Your task to perform on an android device: delete browsing data in the chrome app Image 0: 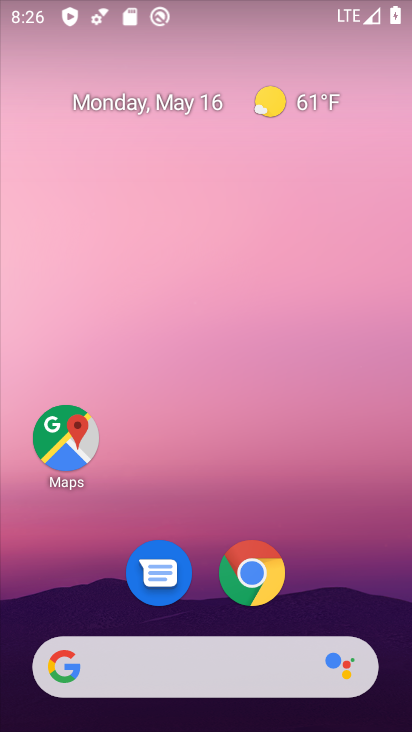
Step 0: click (247, 573)
Your task to perform on an android device: delete browsing data in the chrome app Image 1: 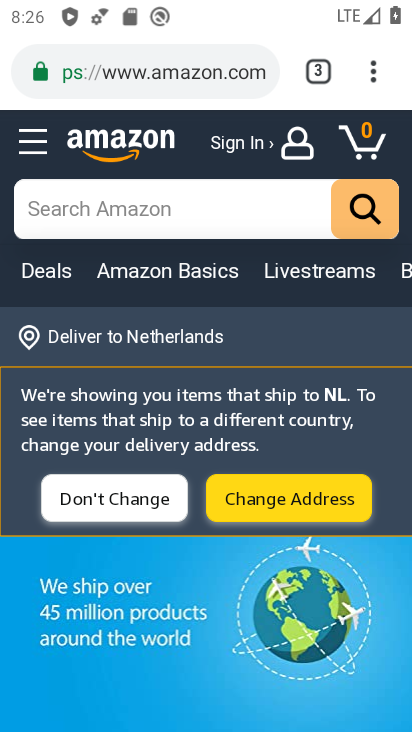
Step 1: click (375, 79)
Your task to perform on an android device: delete browsing data in the chrome app Image 2: 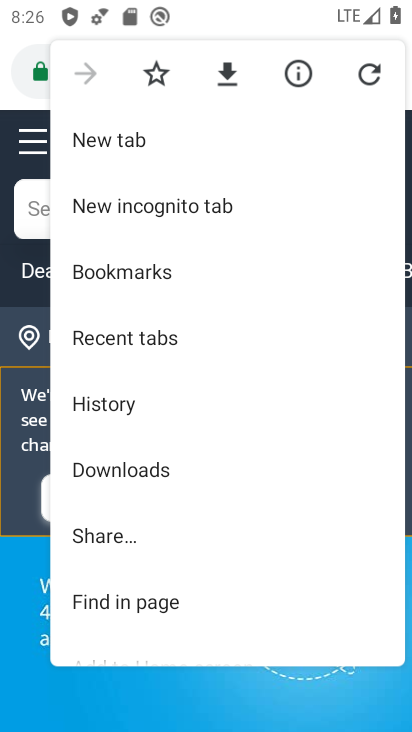
Step 2: click (119, 406)
Your task to perform on an android device: delete browsing data in the chrome app Image 3: 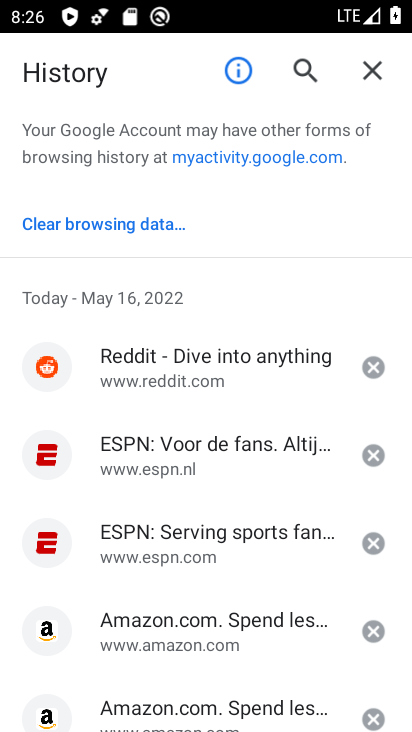
Step 3: click (108, 225)
Your task to perform on an android device: delete browsing data in the chrome app Image 4: 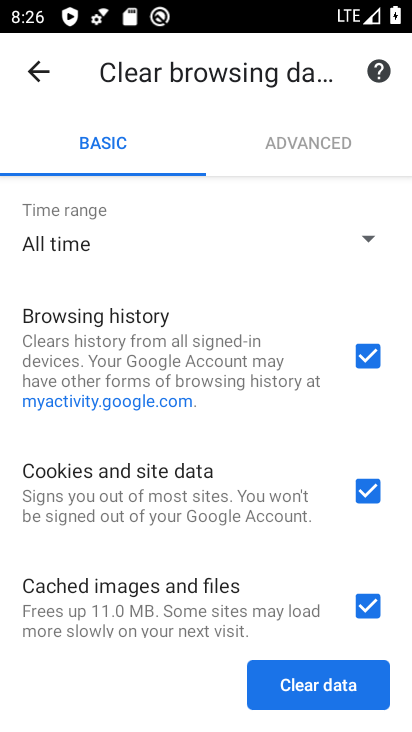
Step 4: click (365, 492)
Your task to perform on an android device: delete browsing data in the chrome app Image 5: 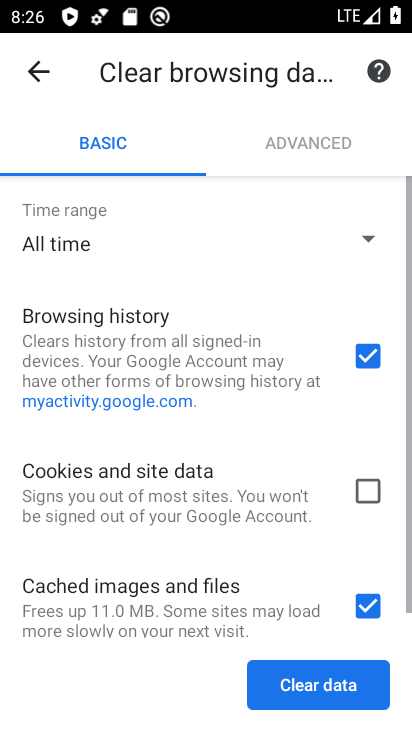
Step 5: click (368, 604)
Your task to perform on an android device: delete browsing data in the chrome app Image 6: 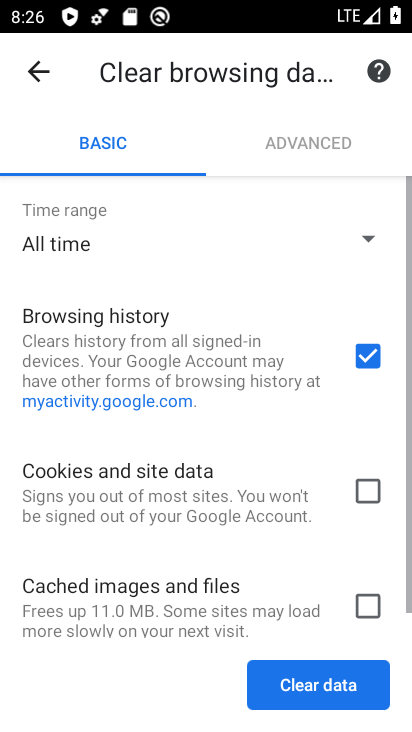
Step 6: drag from (266, 587) to (255, 347)
Your task to perform on an android device: delete browsing data in the chrome app Image 7: 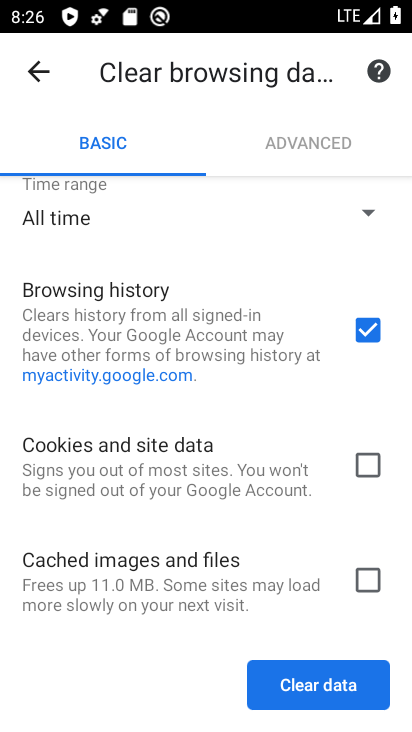
Step 7: click (344, 683)
Your task to perform on an android device: delete browsing data in the chrome app Image 8: 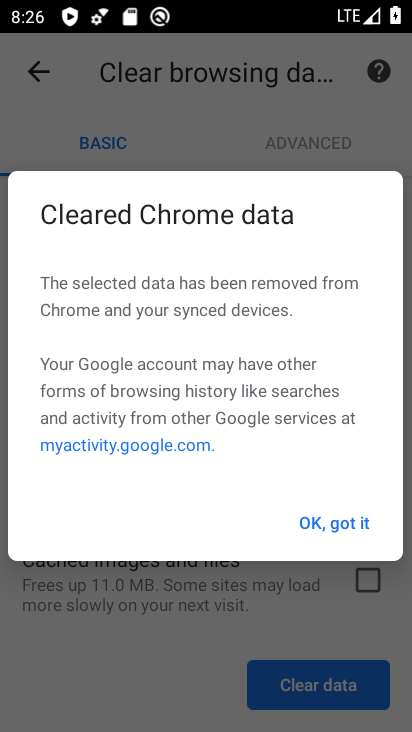
Step 8: click (312, 527)
Your task to perform on an android device: delete browsing data in the chrome app Image 9: 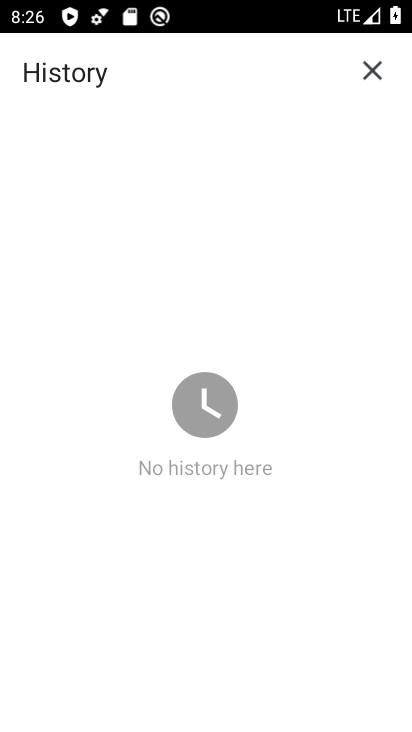
Step 9: task complete